Your task to perform on an android device: Open Chrome and go to the settings page Image 0: 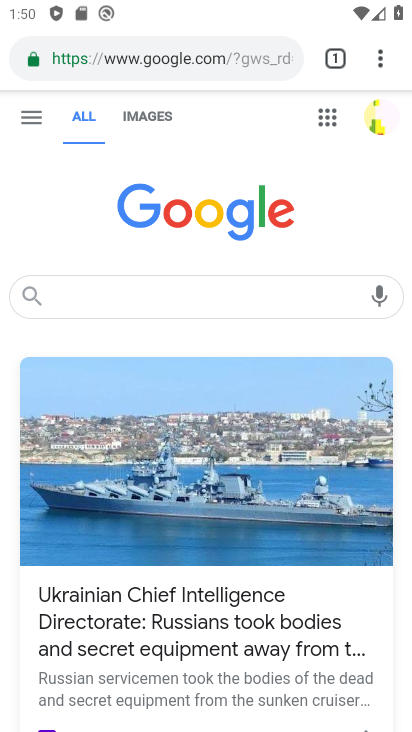
Step 0: drag from (385, 54) to (182, 604)
Your task to perform on an android device: Open Chrome and go to the settings page Image 1: 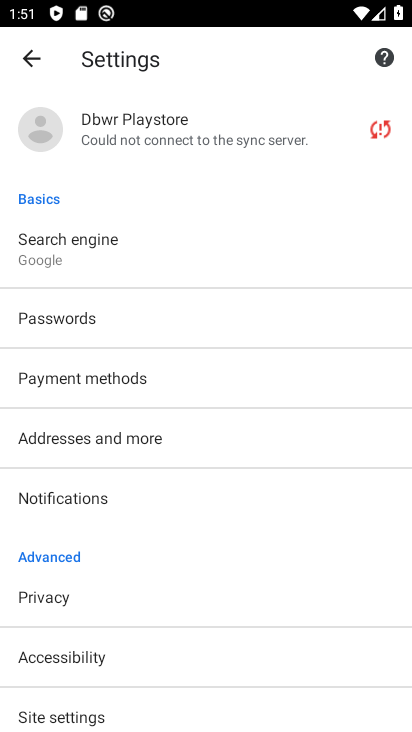
Step 1: task complete